Your task to perform on an android device: turn off notifications in google photos Image 0: 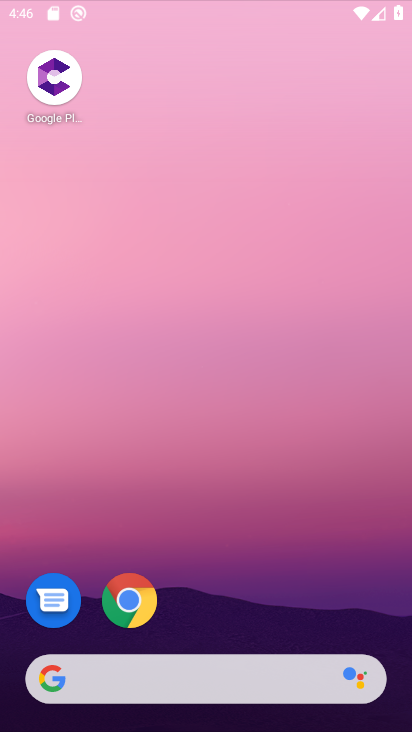
Step 0: click (303, 55)
Your task to perform on an android device: turn off notifications in google photos Image 1: 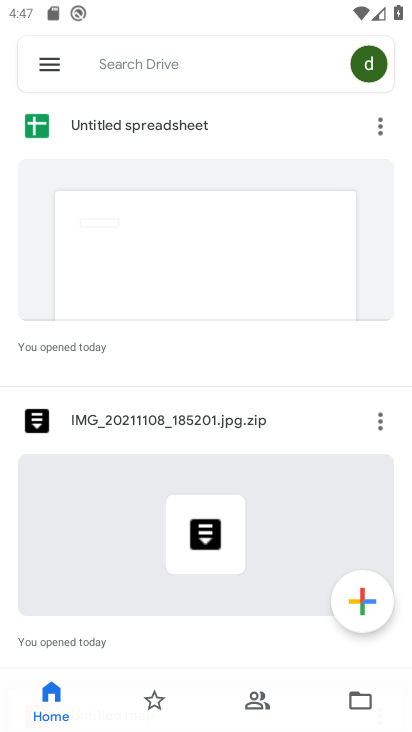
Step 1: press home button
Your task to perform on an android device: turn off notifications in google photos Image 2: 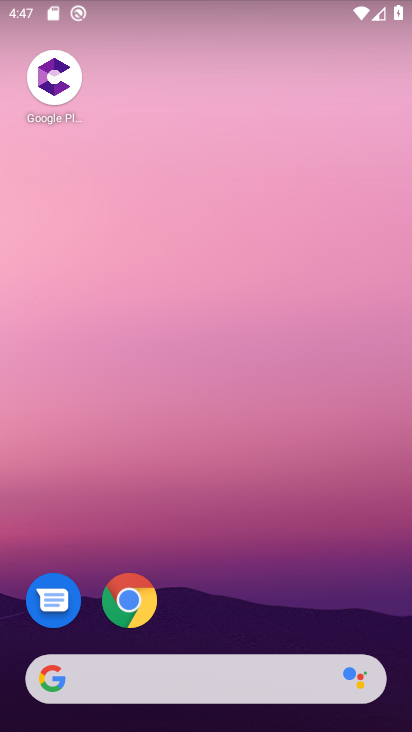
Step 2: drag from (290, 672) to (320, 15)
Your task to perform on an android device: turn off notifications in google photos Image 3: 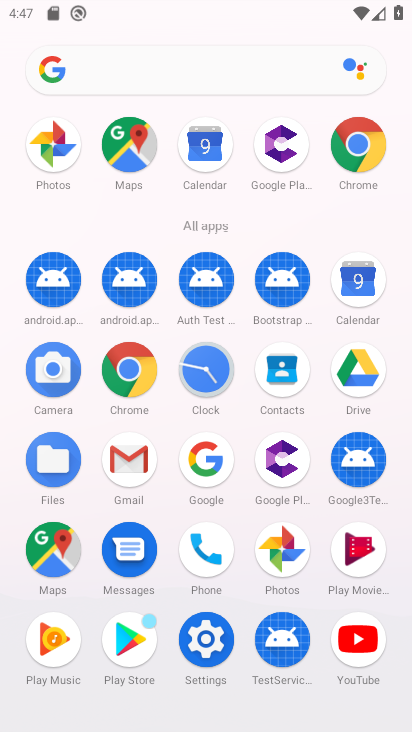
Step 3: click (277, 568)
Your task to perform on an android device: turn off notifications in google photos Image 4: 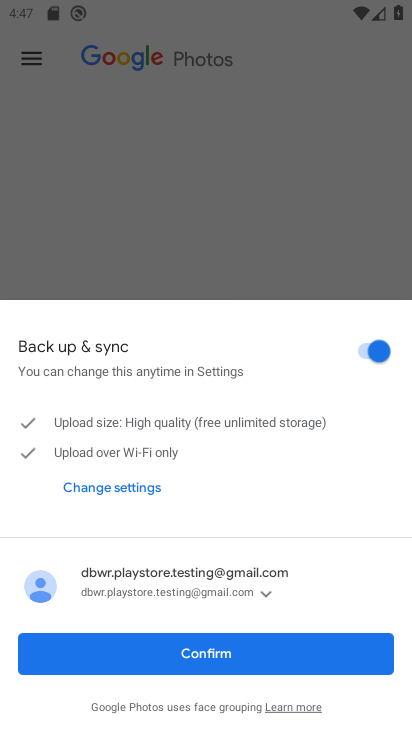
Step 4: click (222, 645)
Your task to perform on an android device: turn off notifications in google photos Image 5: 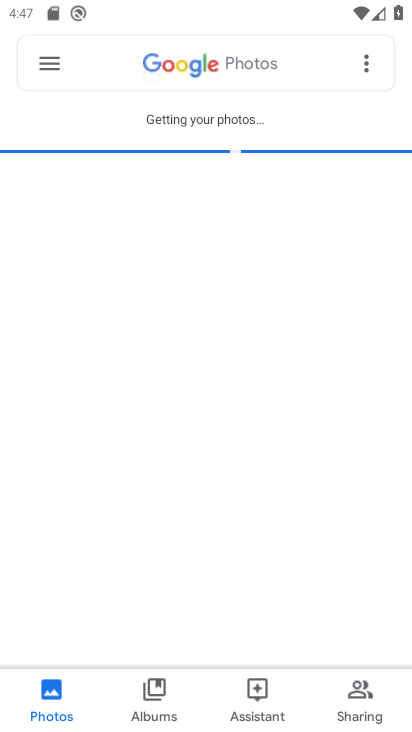
Step 5: click (27, 55)
Your task to perform on an android device: turn off notifications in google photos Image 6: 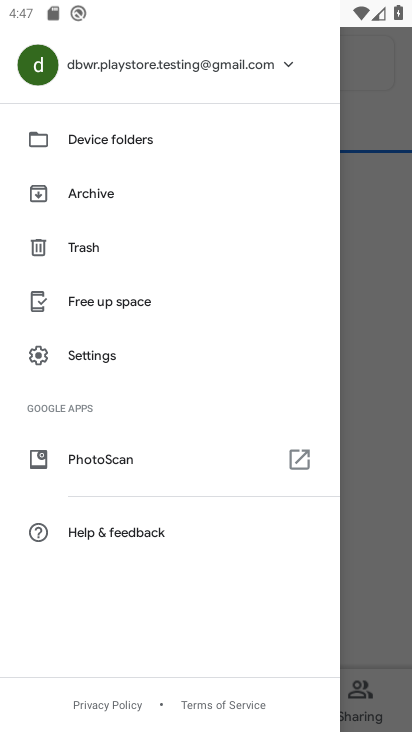
Step 6: click (127, 378)
Your task to perform on an android device: turn off notifications in google photos Image 7: 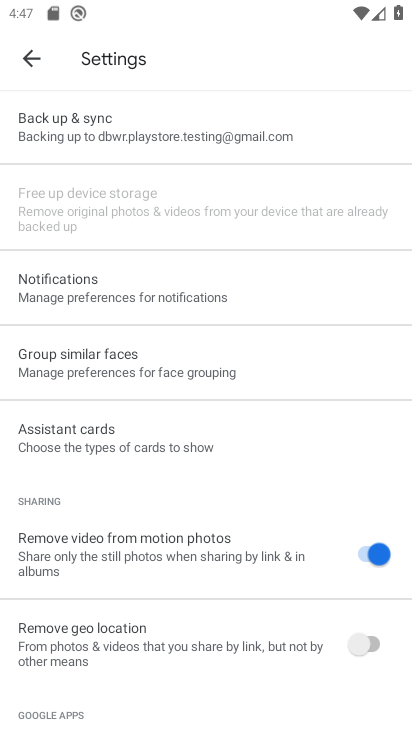
Step 7: click (166, 308)
Your task to perform on an android device: turn off notifications in google photos Image 8: 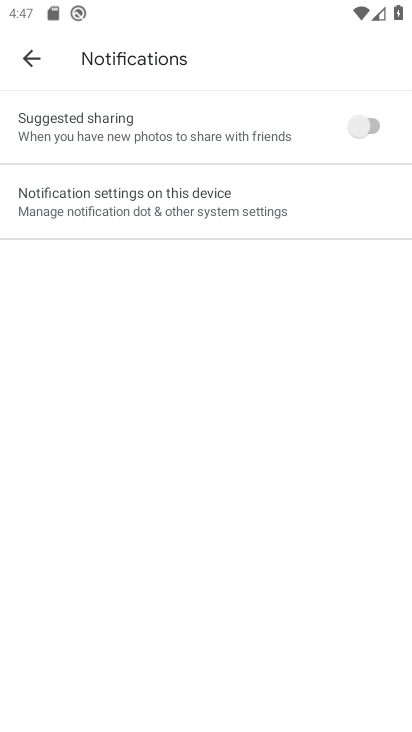
Step 8: click (307, 154)
Your task to perform on an android device: turn off notifications in google photos Image 9: 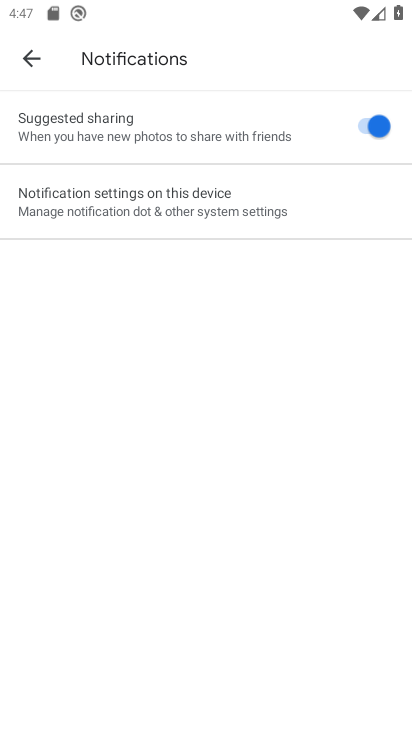
Step 9: click (376, 133)
Your task to perform on an android device: turn off notifications in google photos Image 10: 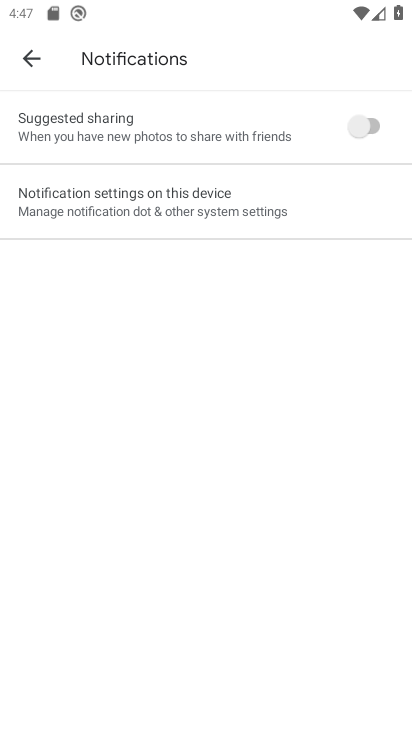
Step 10: click (318, 188)
Your task to perform on an android device: turn off notifications in google photos Image 11: 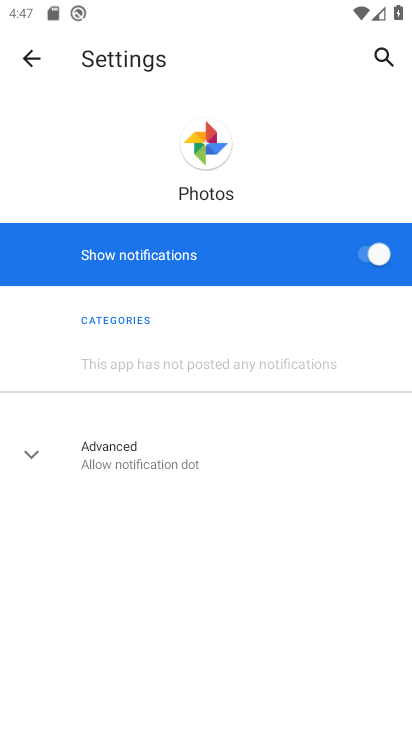
Step 11: click (370, 254)
Your task to perform on an android device: turn off notifications in google photos Image 12: 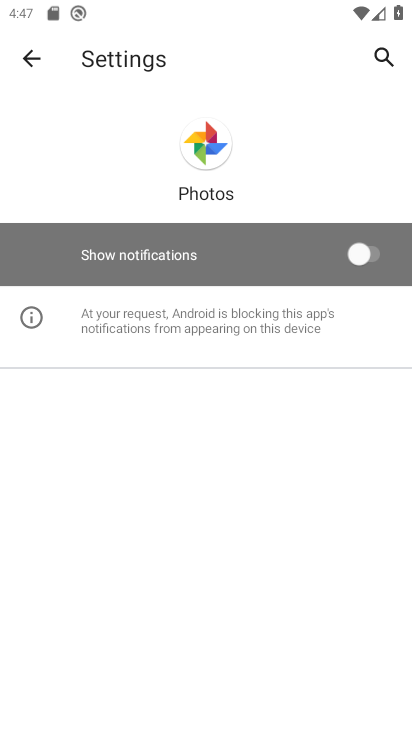
Step 12: task complete